Your task to perform on an android device: Open calendar and show me the third week of next month Image 0: 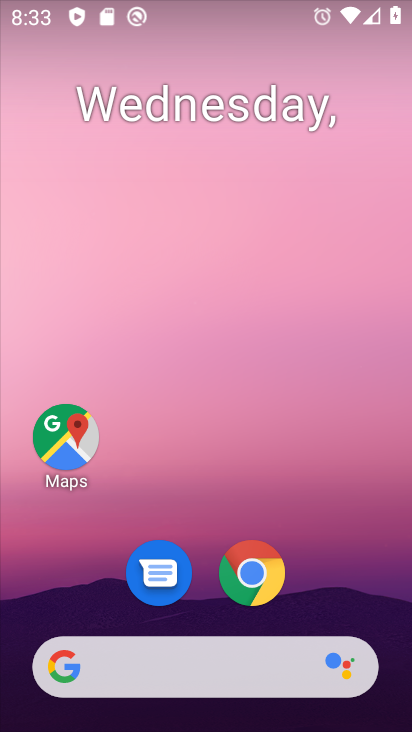
Step 0: drag from (295, 640) to (300, 89)
Your task to perform on an android device: Open calendar and show me the third week of next month Image 1: 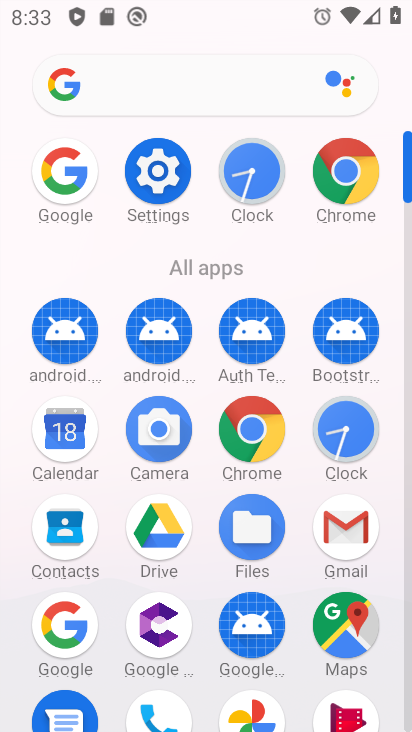
Step 1: click (63, 445)
Your task to perform on an android device: Open calendar and show me the third week of next month Image 2: 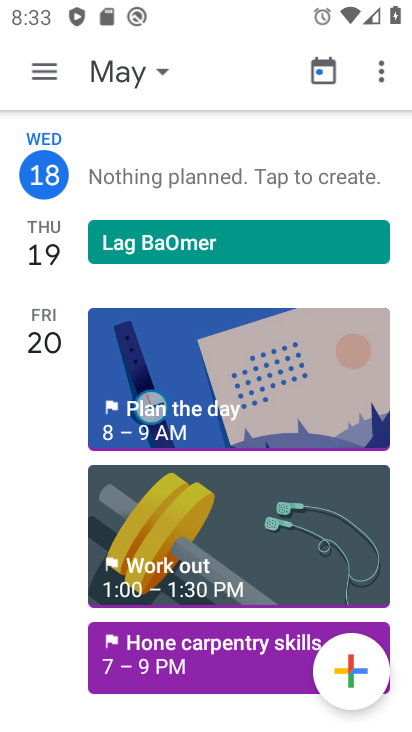
Step 2: click (122, 83)
Your task to perform on an android device: Open calendar and show me the third week of next month Image 3: 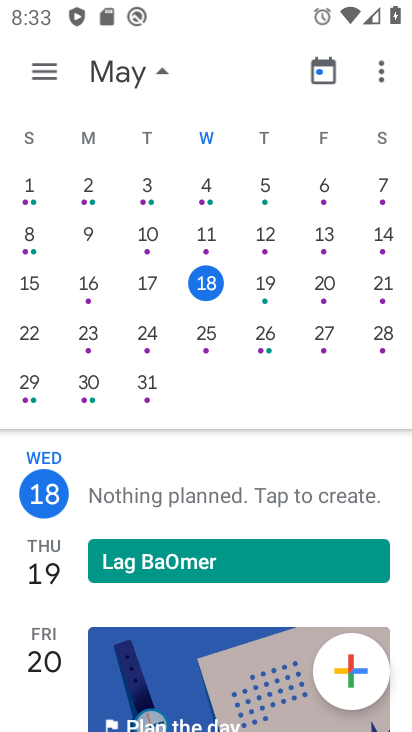
Step 3: drag from (298, 324) to (79, 317)
Your task to perform on an android device: Open calendar and show me the third week of next month Image 4: 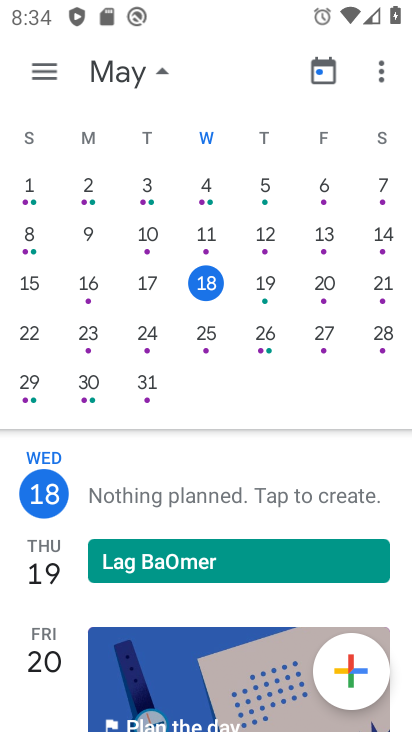
Step 4: drag from (235, 377) to (26, 418)
Your task to perform on an android device: Open calendar and show me the third week of next month Image 5: 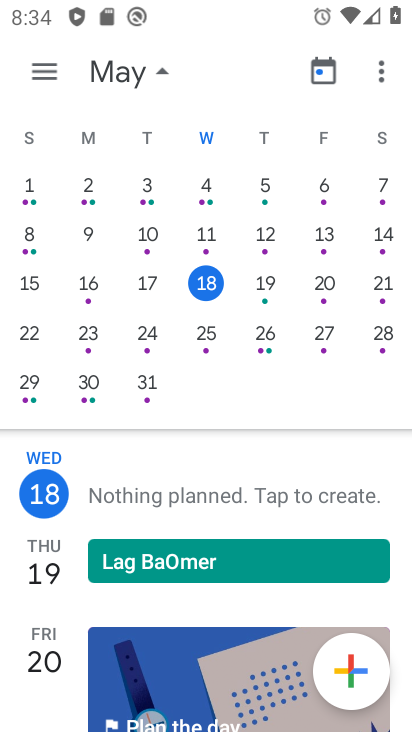
Step 5: drag from (346, 286) to (0, 360)
Your task to perform on an android device: Open calendar and show me the third week of next month Image 6: 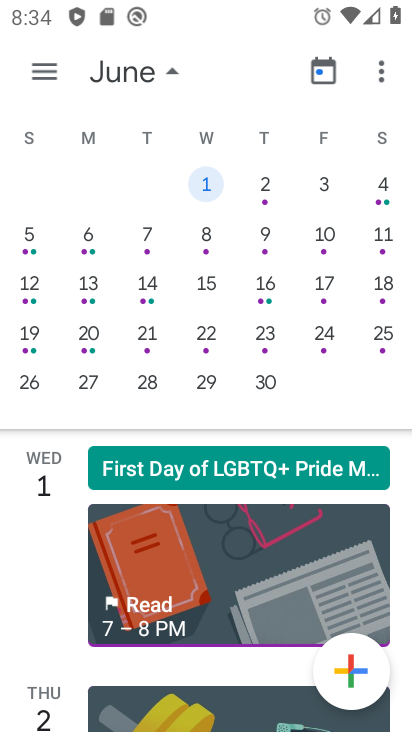
Step 6: click (38, 332)
Your task to perform on an android device: Open calendar and show me the third week of next month Image 7: 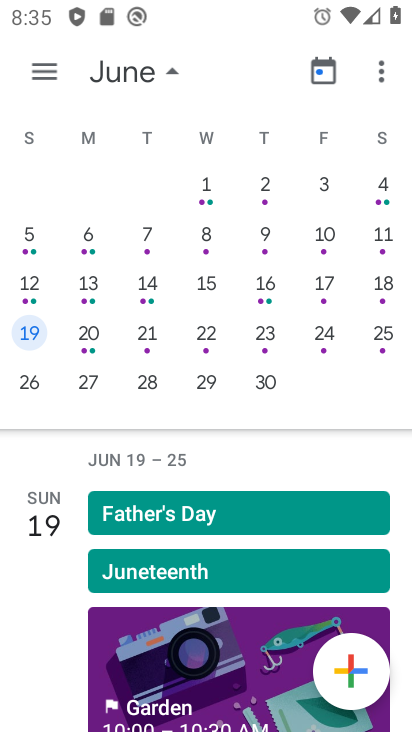
Step 7: task complete